Your task to perform on an android device: manage bookmarks in the chrome app Image 0: 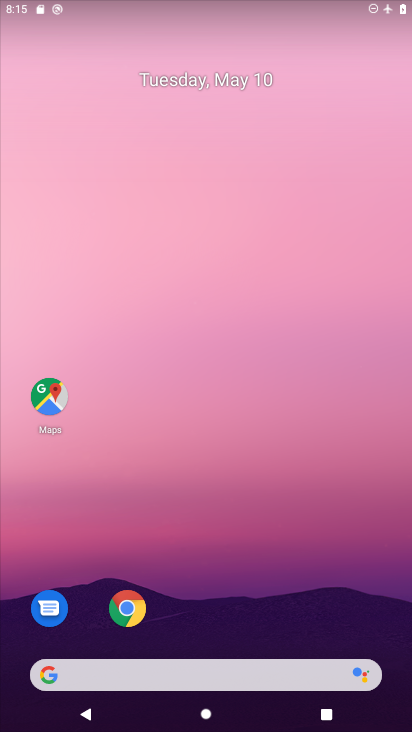
Step 0: click (274, 238)
Your task to perform on an android device: manage bookmarks in the chrome app Image 1: 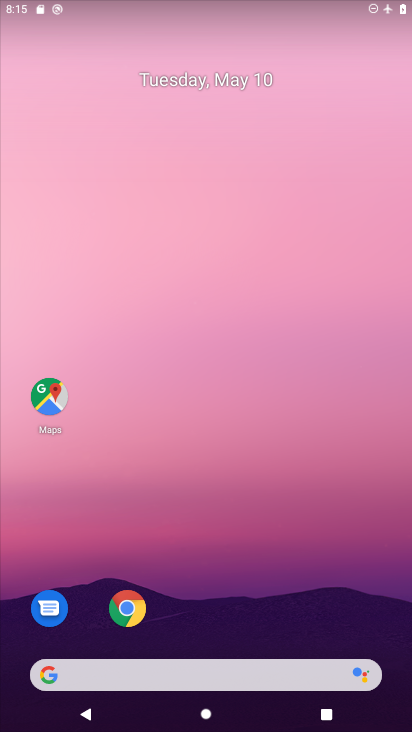
Step 1: drag from (281, 632) to (284, 244)
Your task to perform on an android device: manage bookmarks in the chrome app Image 2: 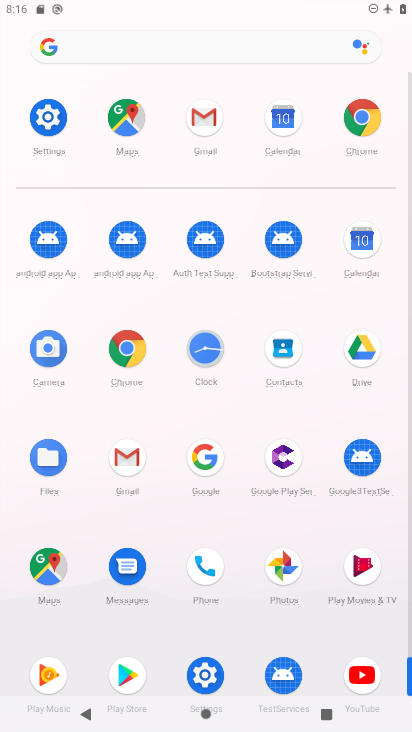
Step 2: click (135, 345)
Your task to perform on an android device: manage bookmarks in the chrome app Image 3: 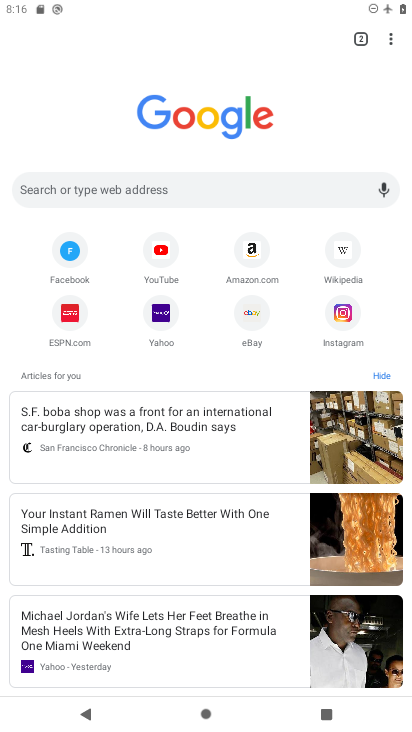
Step 3: click (380, 37)
Your task to perform on an android device: manage bookmarks in the chrome app Image 4: 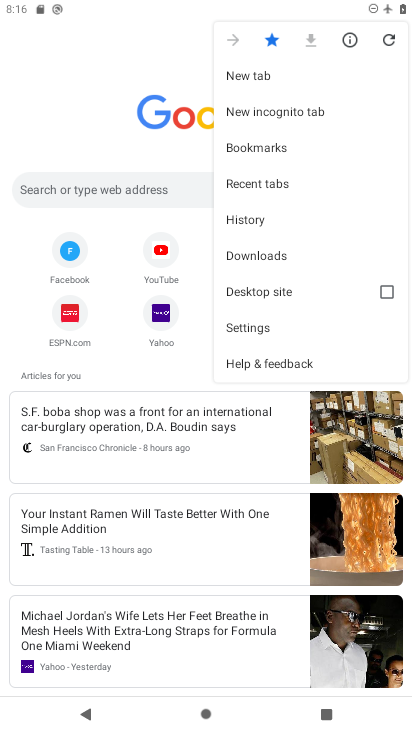
Step 4: click (268, 145)
Your task to perform on an android device: manage bookmarks in the chrome app Image 5: 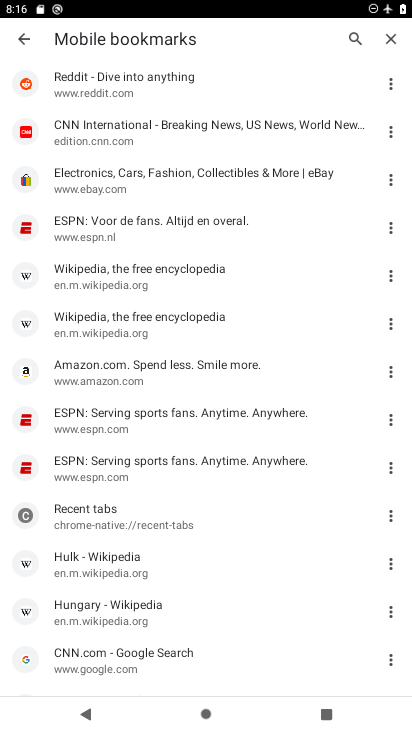
Step 5: click (131, 122)
Your task to perform on an android device: manage bookmarks in the chrome app Image 6: 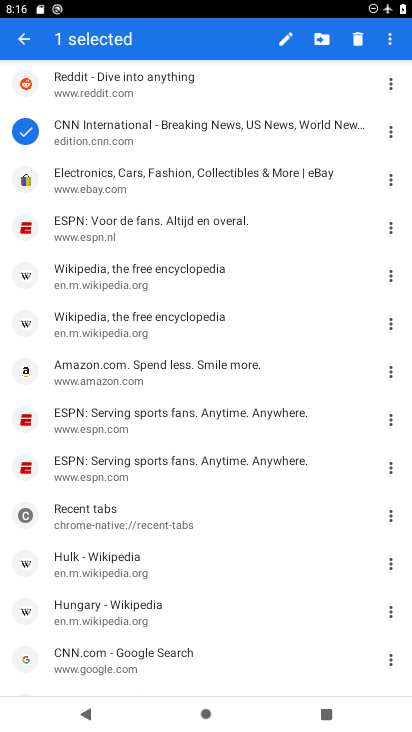
Step 6: click (325, 35)
Your task to perform on an android device: manage bookmarks in the chrome app Image 7: 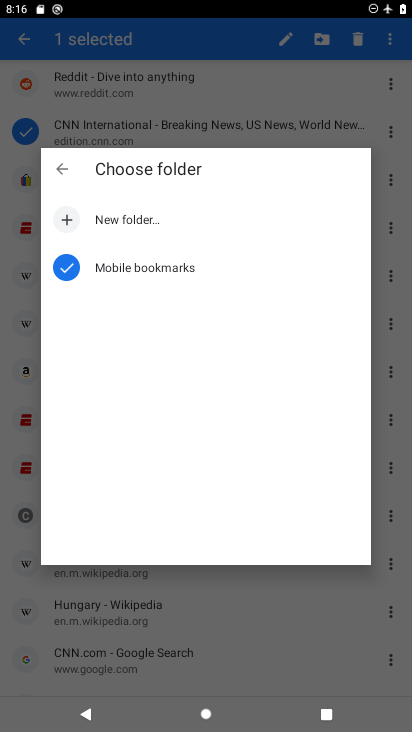
Step 7: click (113, 269)
Your task to perform on an android device: manage bookmarks in the chrome app Image 8: 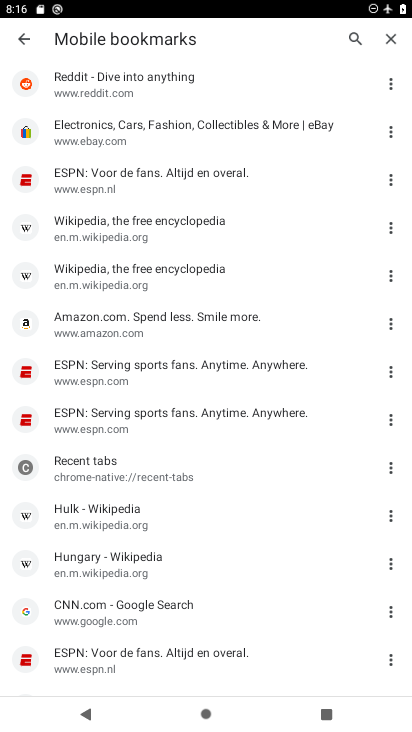
Step 8: task complete